Your task to perform on an android device: Open Wikipedia Image 0: 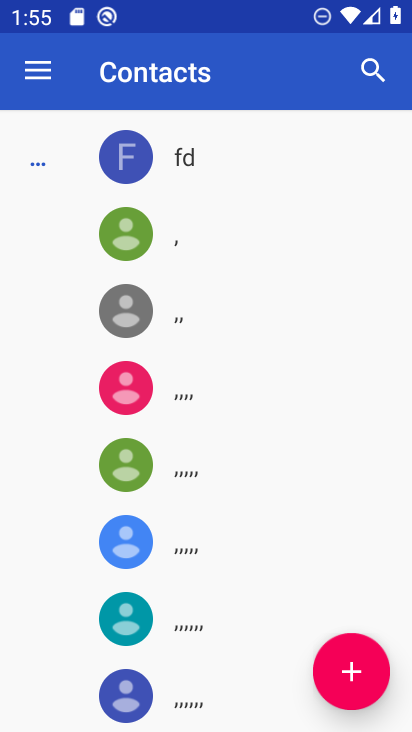
Step 0: press home button
Your task to perform on an android device: Open Wikipedia Image 1: 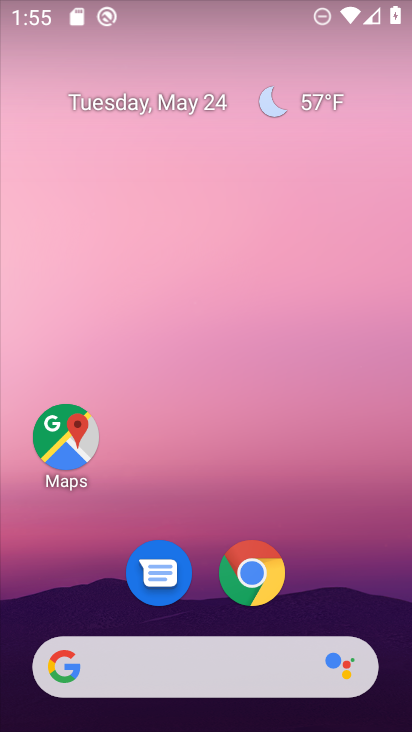
Step 1: click (267, 582)
Your task to perform on an android device: Open Wikipedia Image 2: 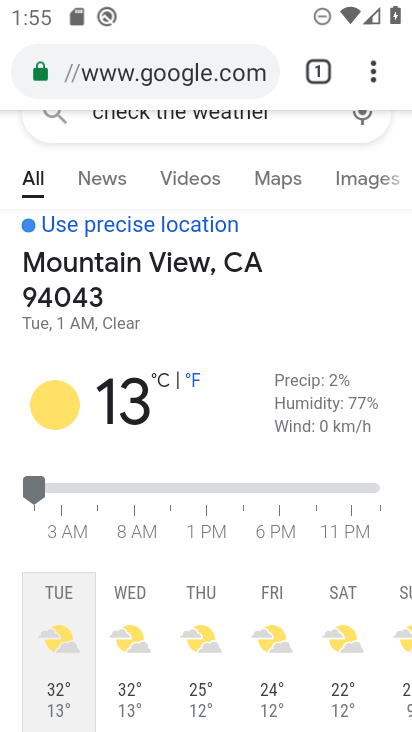
Step 2: click (313, 73)
Your task to perform on an android device: Open Wikipedia Image 3: 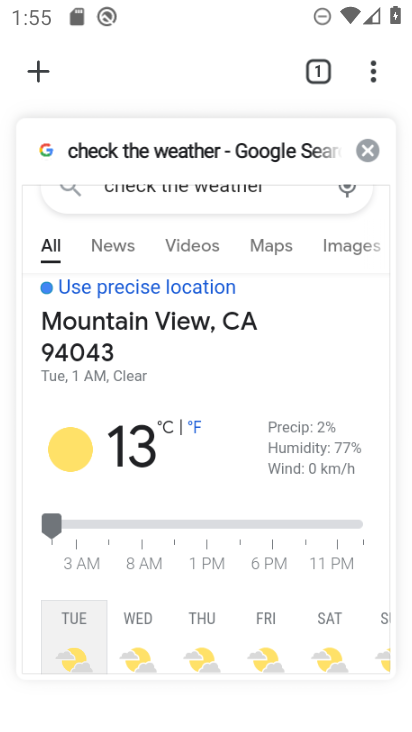
Step 3: click (43, 66)
Your task to perform on an android device: Open Wikipedia Image 4: 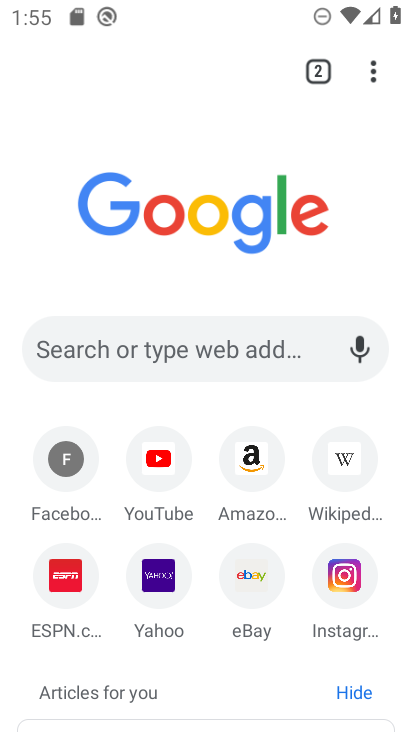
Step 4: click (361, 482)
Your task to perform on an android device: Open Wikipedia Image 5: 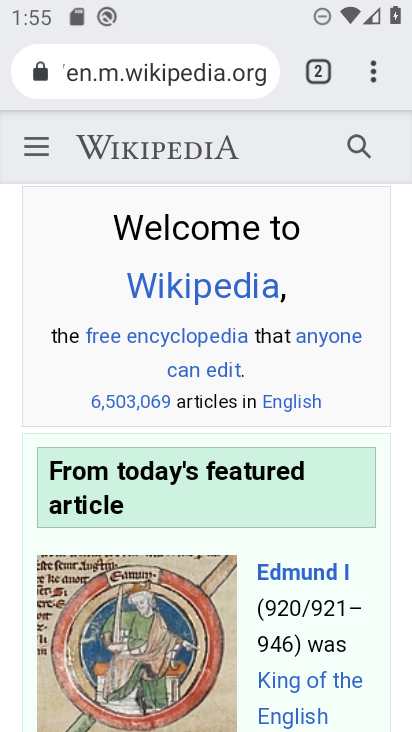
Step 5: task complete